Your task to perform on an android device: Do I have any events this weekend? Image 0: 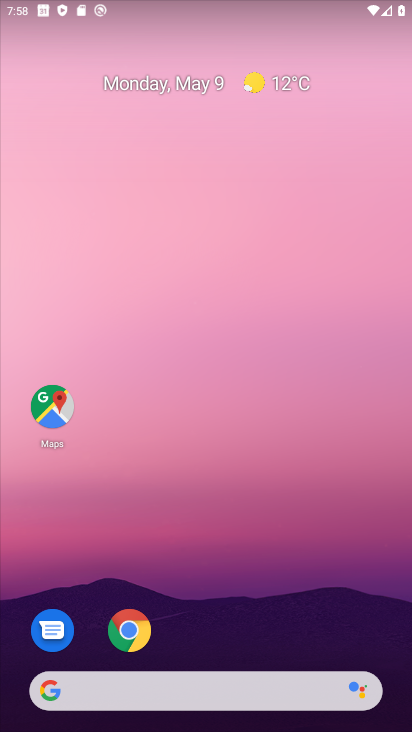
Step 0: drag from (157, 668) to (216, 296)
Your task to perform on an android device: Do I have any events this weekend? Image 1: 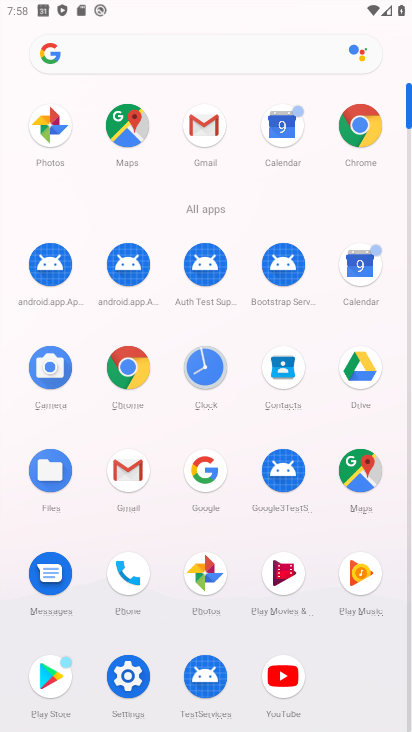
Step 1: click (290, 124)
Your task to perform on an android device: Do I have any events this weekend? Image 2: 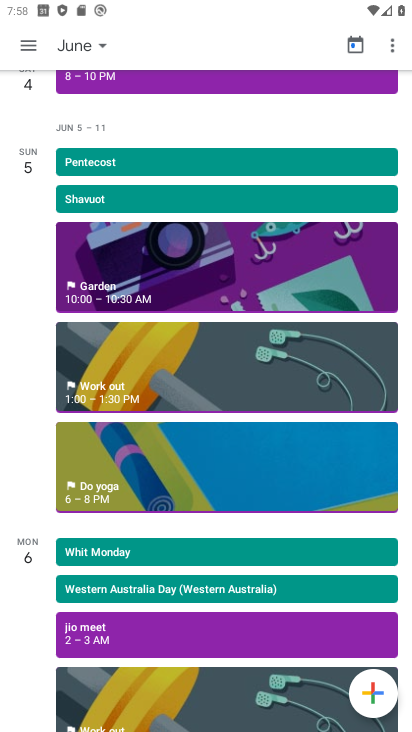
Step 2: click (82, 37)
Your task to perform on an android device: Do I have any events this weekend? Image 3: 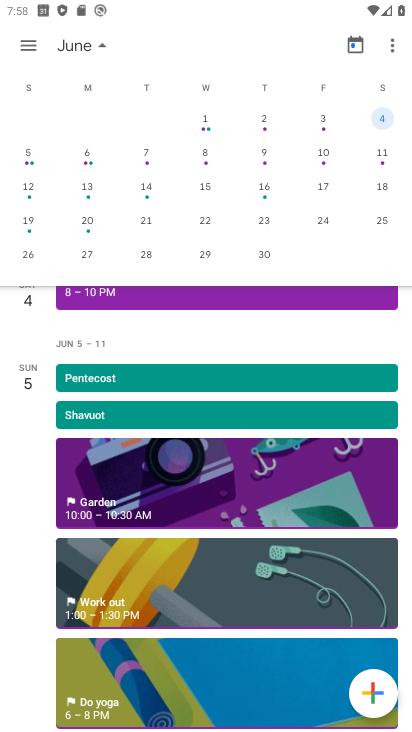
Step 3: drag from (43, 179) to (394, 195)
Your task to perform on an android device: Do I have any events this weekend? Image 4: 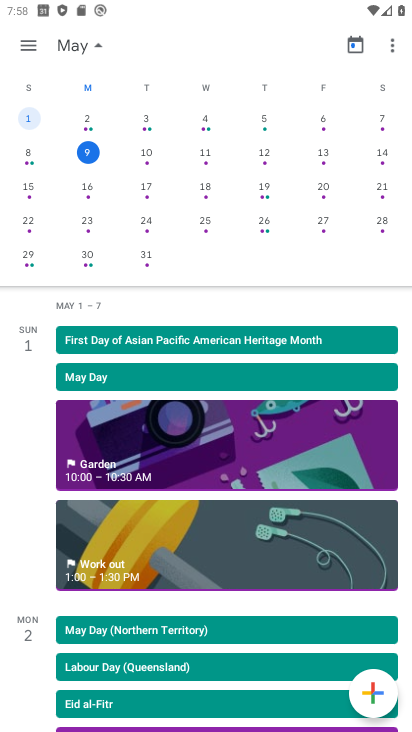
Step 4: click (328, 151)
Your task to perform on an android device: Do I have any events this weekend? Image 5: 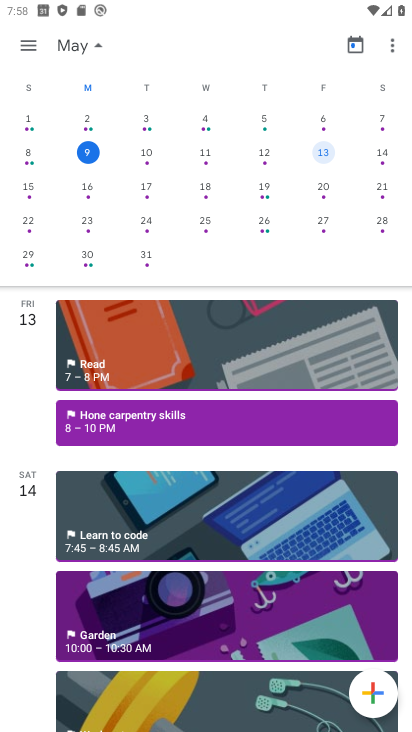
Step 5: drag from (200, 637) to (192, 386)
Your task to perform on an android device: Do I have any events this weekend? Image 6: 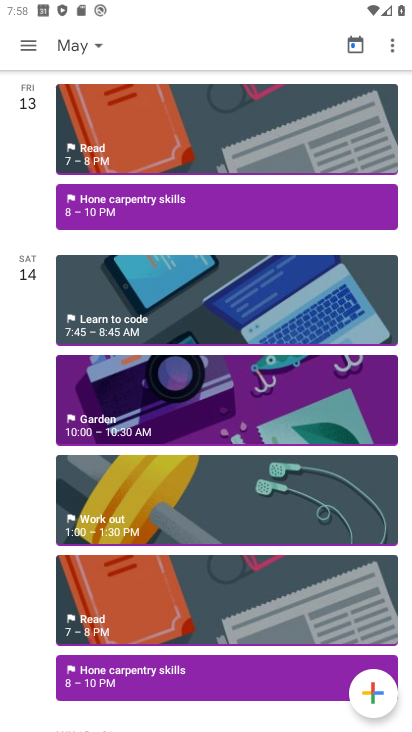
Step 6: click (131, 318)
Your task to perform on an android device: Do I have any events this weekend? Image 7: 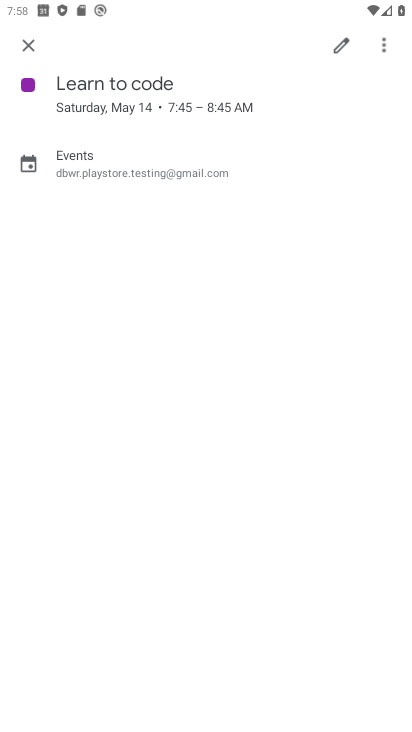
Step 7: click (19, 43)
Your task to perform on an android device: Do I have any events this weekend? Image 8: 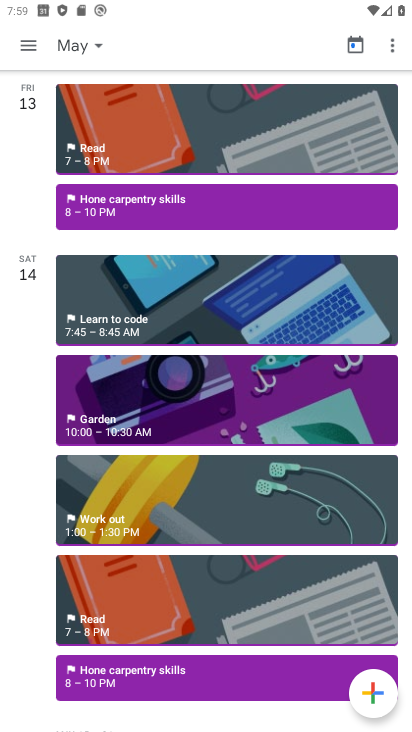
Step 8: click (108, 689)
Your task to perform on an android device: Do I have any events this weekend? Image 9: 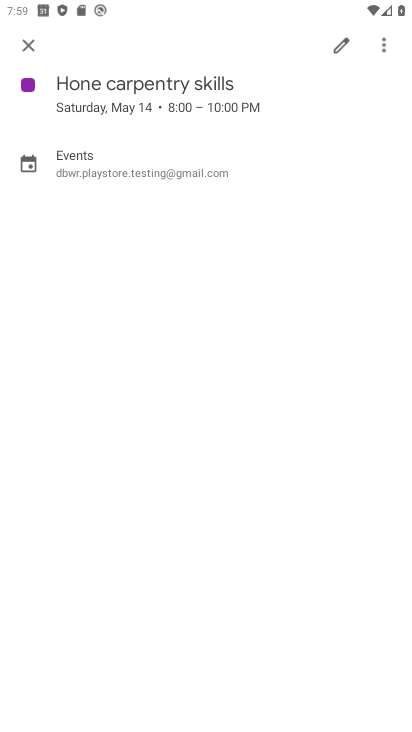
Step 9: task complete